Your task to perform on an android device: change notifications settings Image 0: 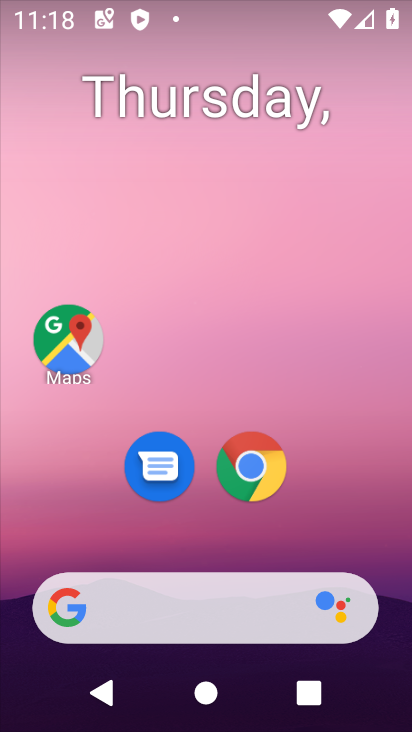
Step 0: drag from (380, 638) to (313, 12)
Your task to perform on an android device: change notifications settings Image 1: 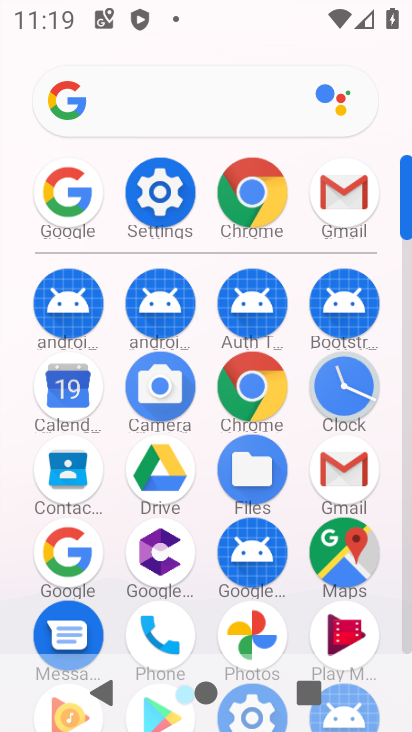
Step 1: click (137, 167)
Your task to perform on an android device: change notifications settings Image 2: 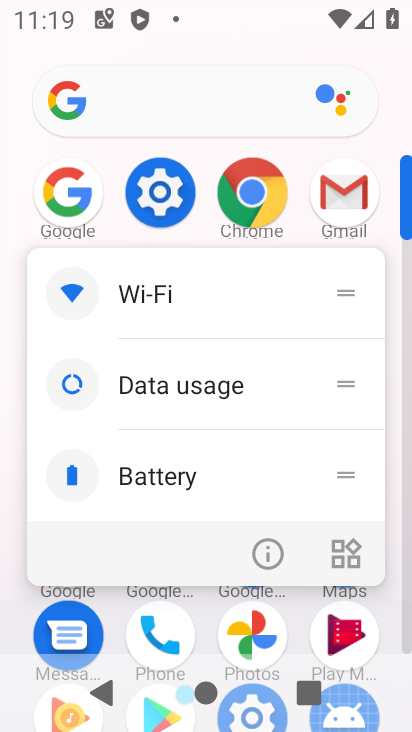
Step 2: click (137, 167)
Your task to perform on an android device: change notifications settings Image 3: 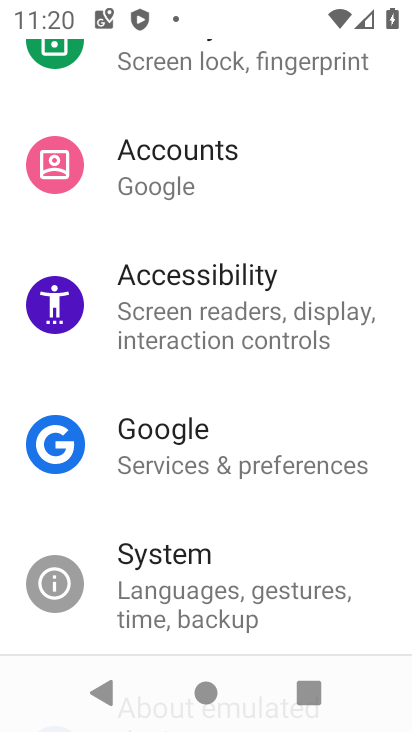
Step 3: task complete